Your task to perform on an android device: Go to location settings Image 0: 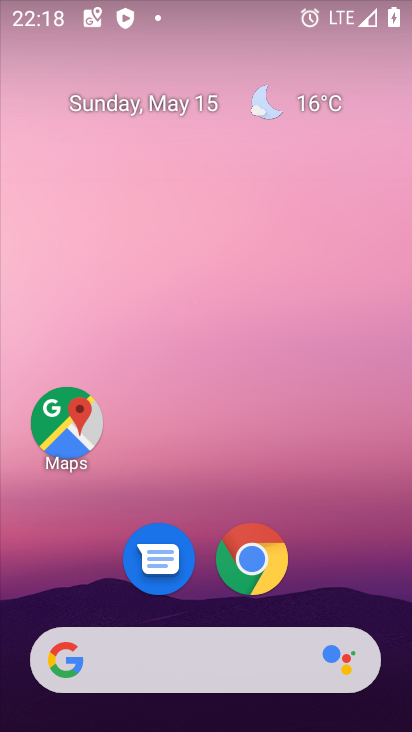
Step 0: drag from (195, 457) to (149, 5)
Your task to perform on an android device: Go to location settings Image 1: 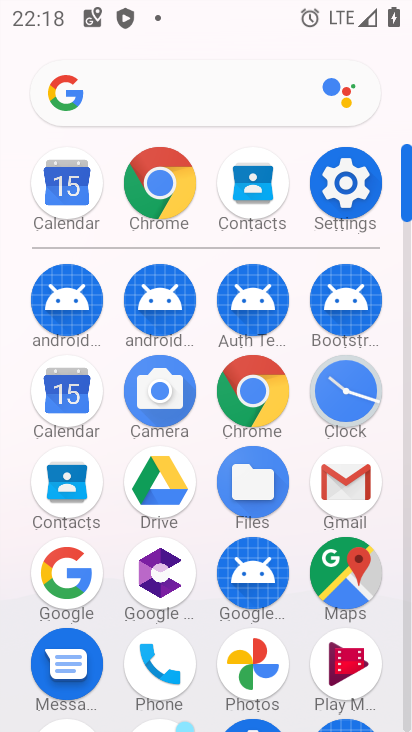
Step 1: click (342, 182)
Your task to perform on an android device: Go to location settings Image 2: 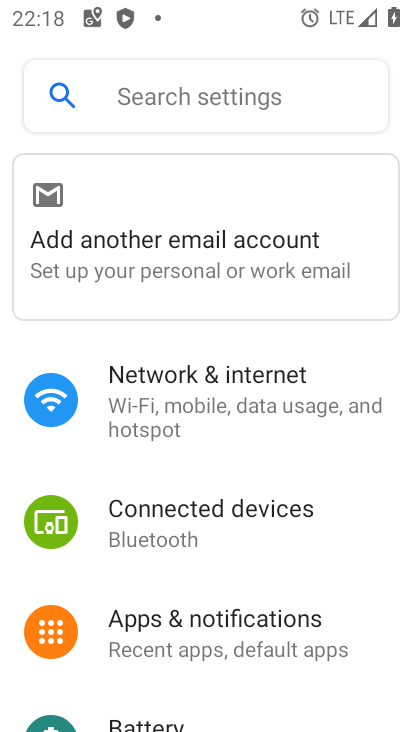
Step 2: drag from (201, 579) to (179, 253)
Your task to perform on an android device: Go to location settings Image 3: 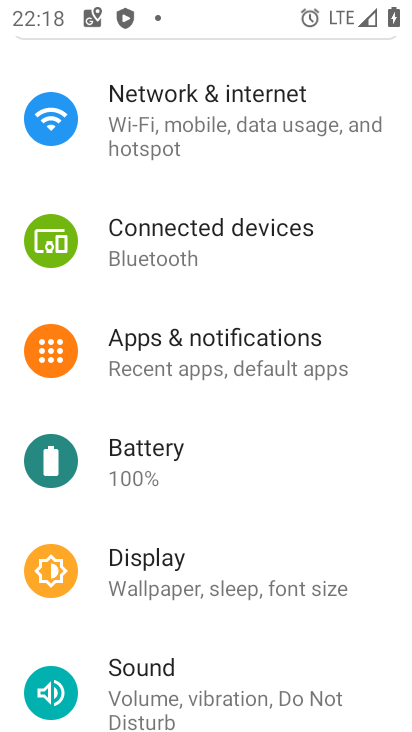
Step 3: drag from (232, 524) to (214, 239)
Your task to perform on an android device: Go to location settings Image 4: 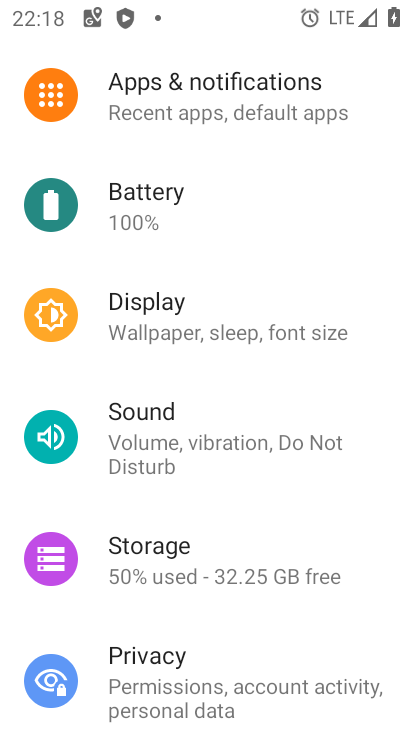
Step 4: drag from (204, 647) to (151, 229)
Your task to perform on an android device: Go to location settings Image 5: 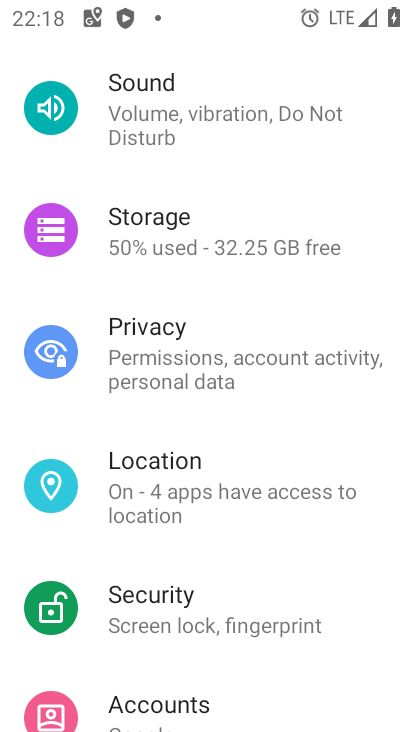
Step 5: click (169, 464)
Your task to perform on an android device: Go to location settings Image 6: 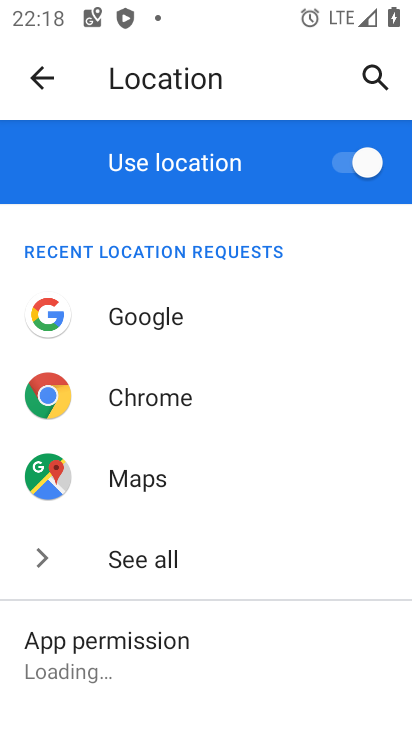
Step 6: task complete